Your task to perform on an android device: Show me the alarms in the clock app Image 0: 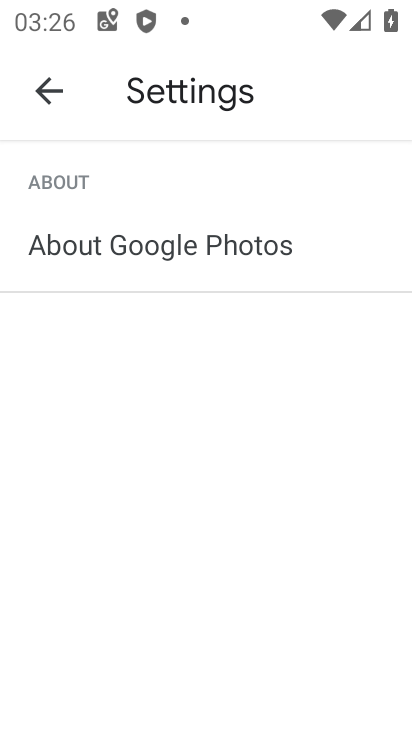
Step 0: press home button
Your task to perform on an android device: Show me the alarms in the clock app Image 1: 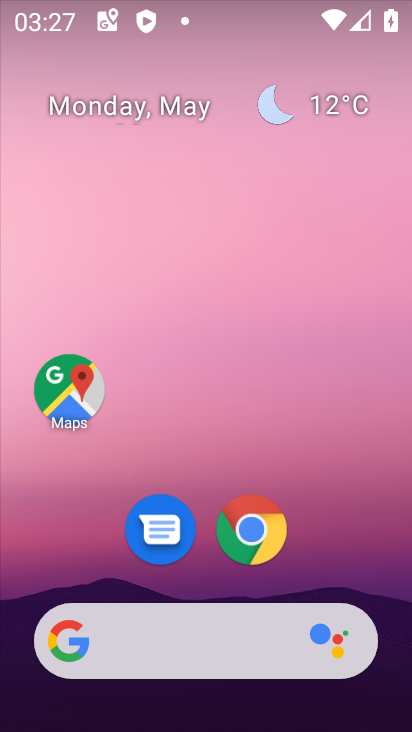
Step 1: drag from (343, 524) to (258, 0)
Your task to perform on an android device: Show me the alarms in the clock app Image 2: 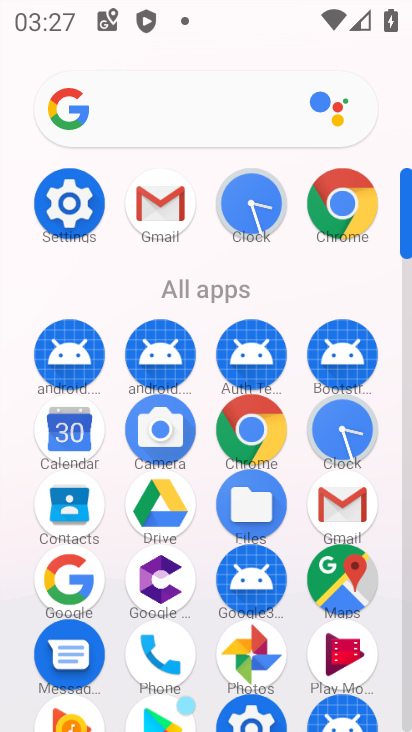
Step 2: click (342, 422)
Your task to perform on an android device: Show me the alarms in the clock app Image 3: 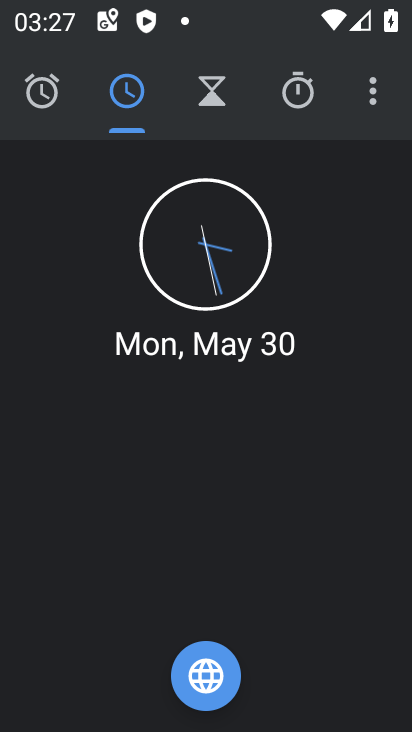
Step 3: click (37, 81)
Your task to perform on an android device: Show me the alarms in the clock app Image 4: 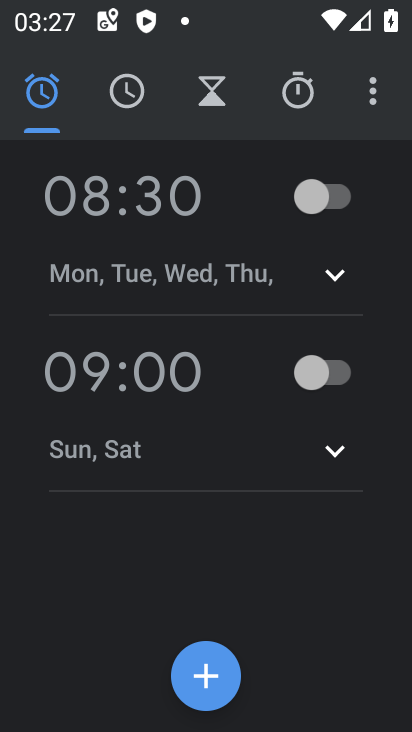
Step 4: task complete